Your task to perform on an android device: Open Google Image 0: 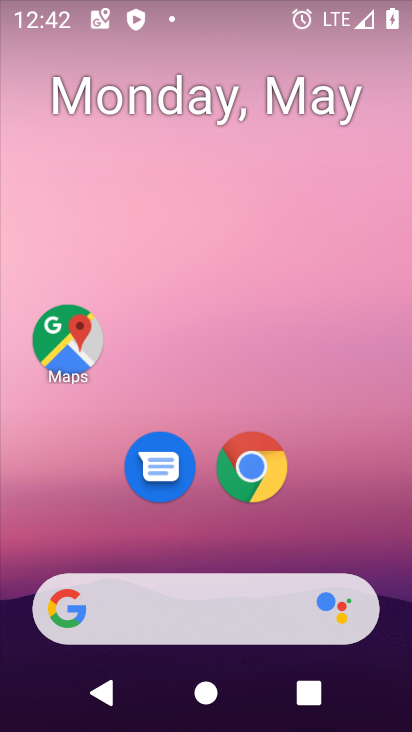
Step 0: drag from (369, 564) to (378, 73)
Your task to perform on an android device: Open Google Image 1: 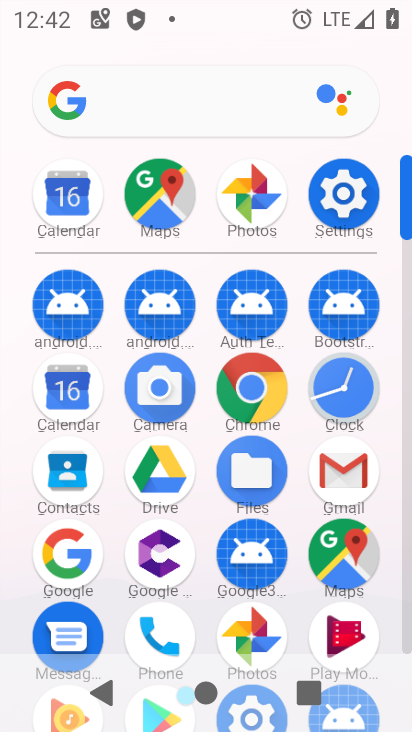
Step 1: click (63, 565)
Your task to perform on an android device: Open Google Image 2: 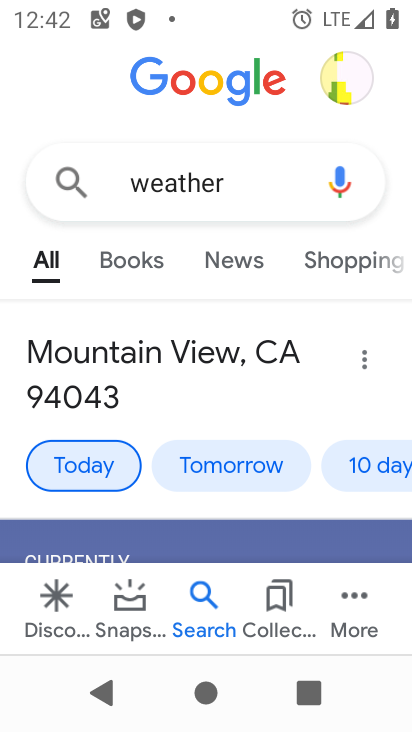
Step 2: task complete